Your task to perform on an android device: open app "Yahoo Mail" (install if not already installed) Image 0: 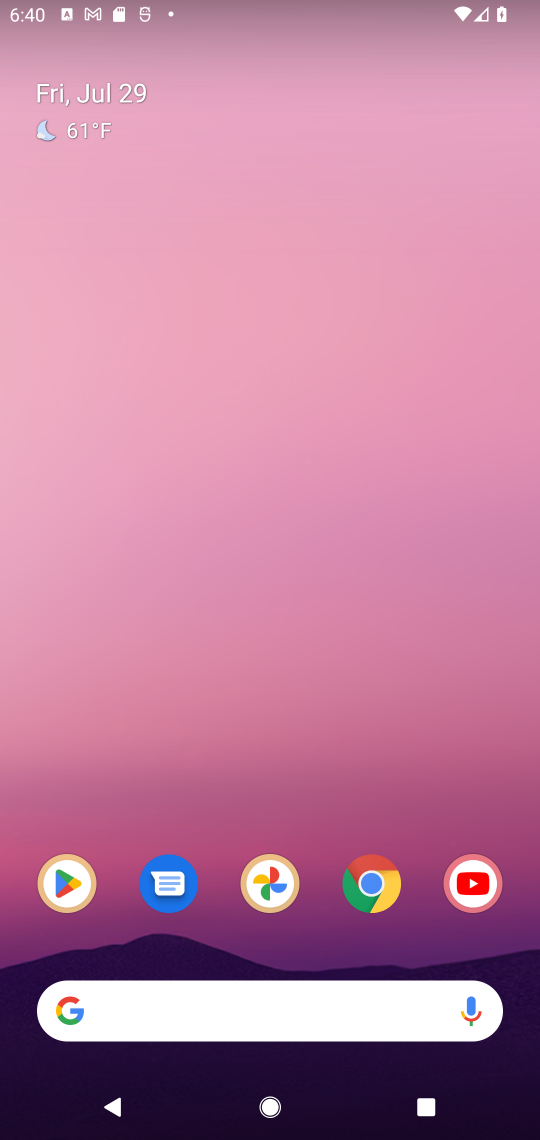
Step 0: click (53, 889)
Your task to perform on an android device: open app "Yahoo Mail" (install if not already installed) Image 1: 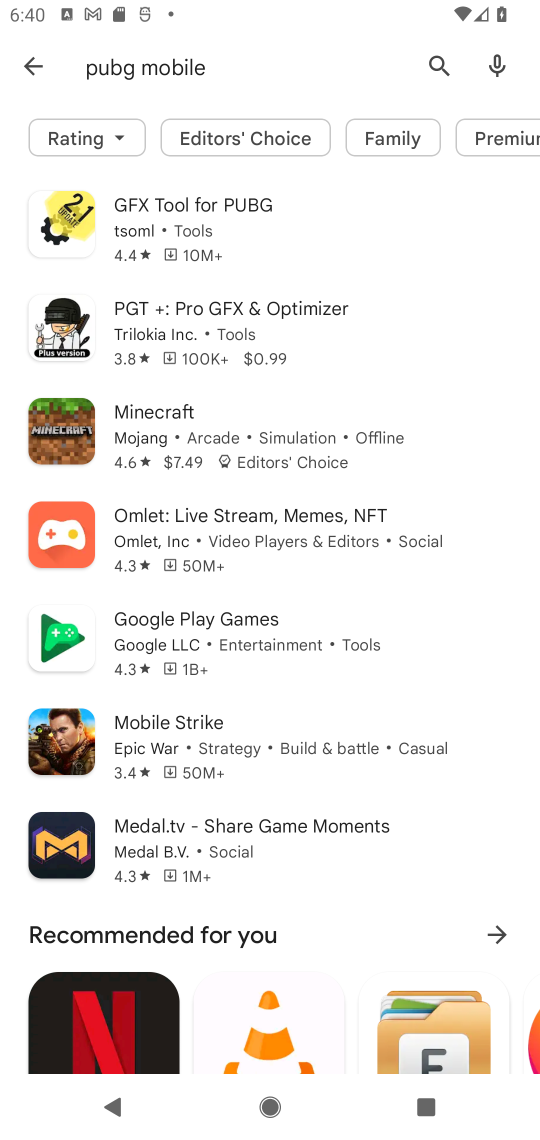
Step 1: click (442, 63)
Your task to perform on an android device: open app "Yahoo Mail" (install if not already installed) Image 2: 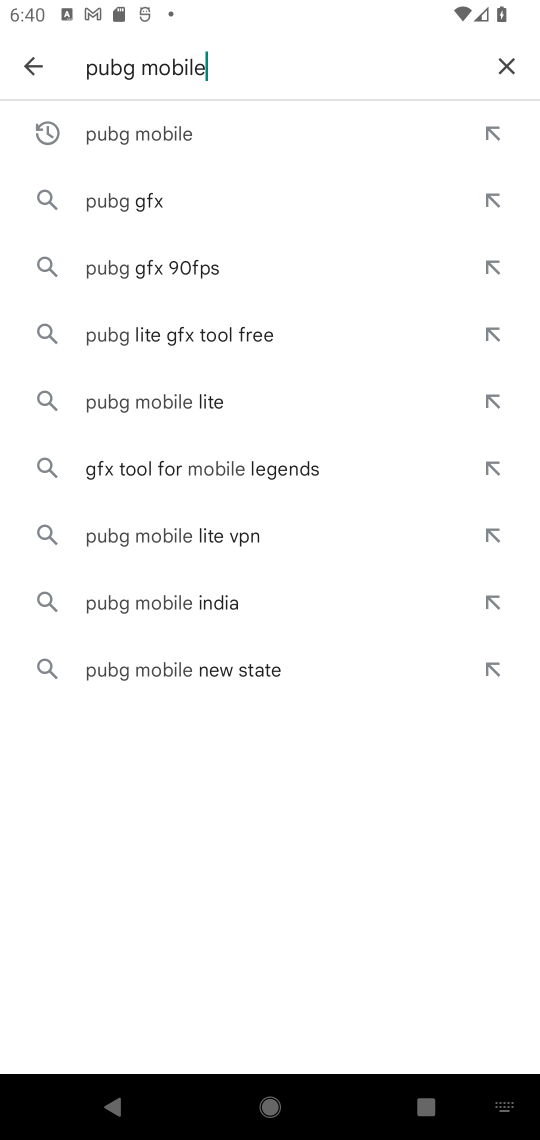
Step 2: click (505, 63)
Your task to perform on an android device: open app "Yahoo Mail" (install if not already installed) Image 3: 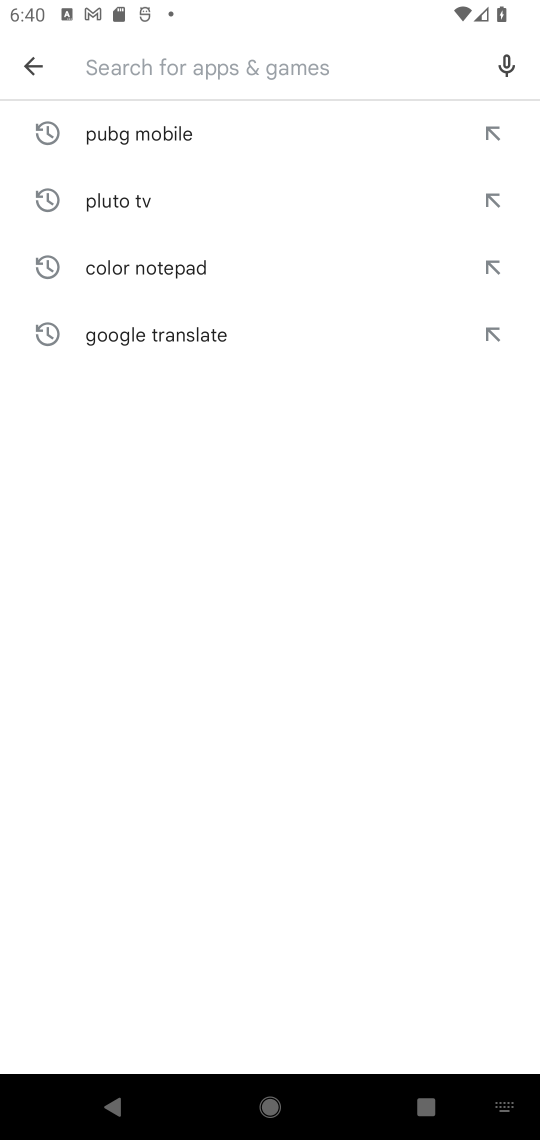
Step 3: click (224, 70)
Your task to perform on an android device: open app "Yahoo Mail" (install if not already installed) Image 4: 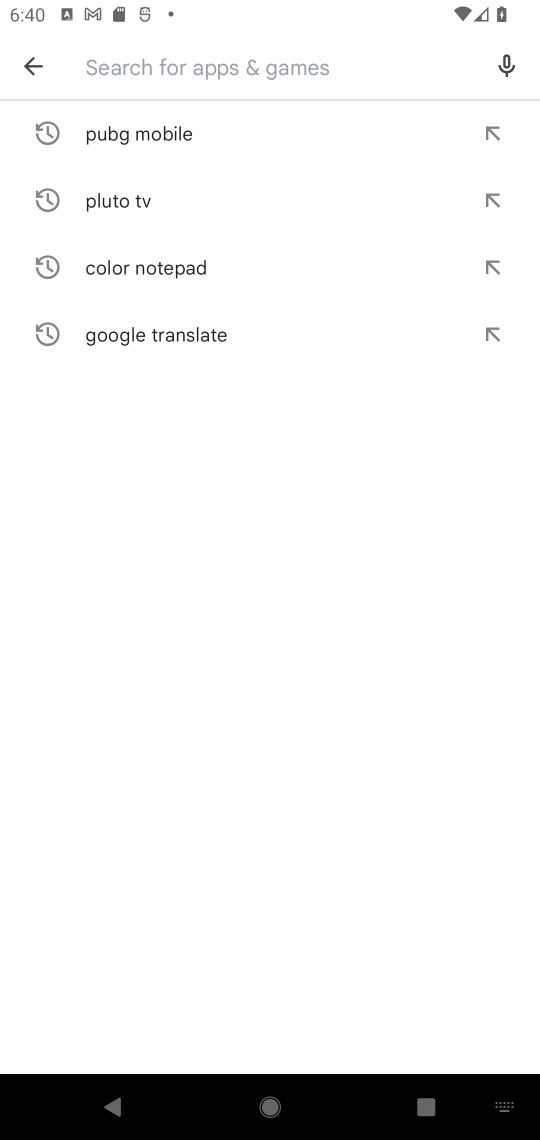
Step 4: type "yahoo mail"
Your task to perform on an android device: open app "Yahoo Mail" (install if not already installed) Image 5: 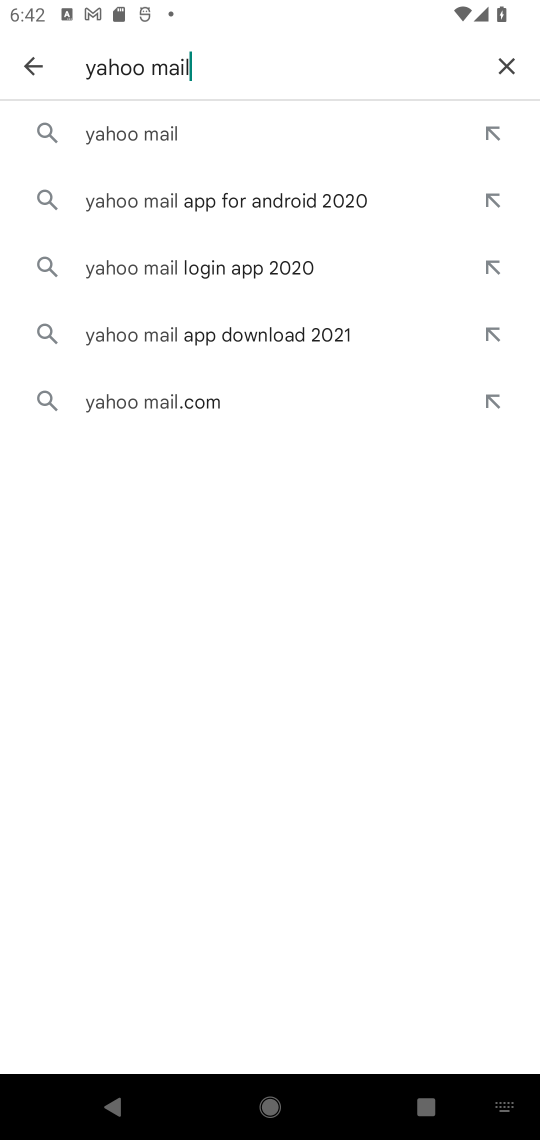
Step 5: click (171, 129)
Your task to perform on an android device: open app "Yahoo Mail" (install if not already installed) Image 6: 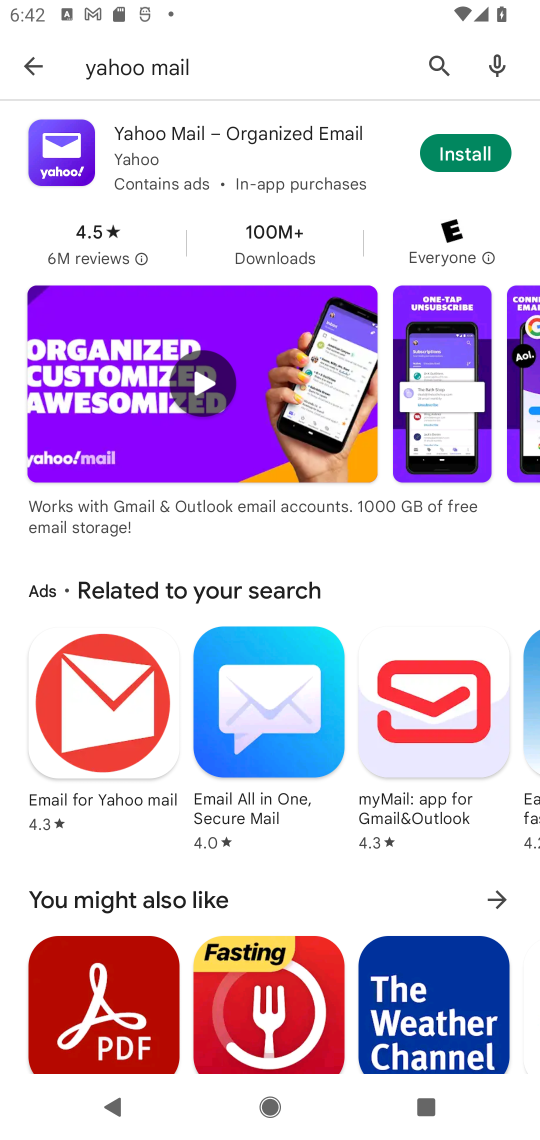
Step 6: click (456, 154)
Your task to perform on an android device: open app "Yahoo Mail" (install if not already installed) Image 7: 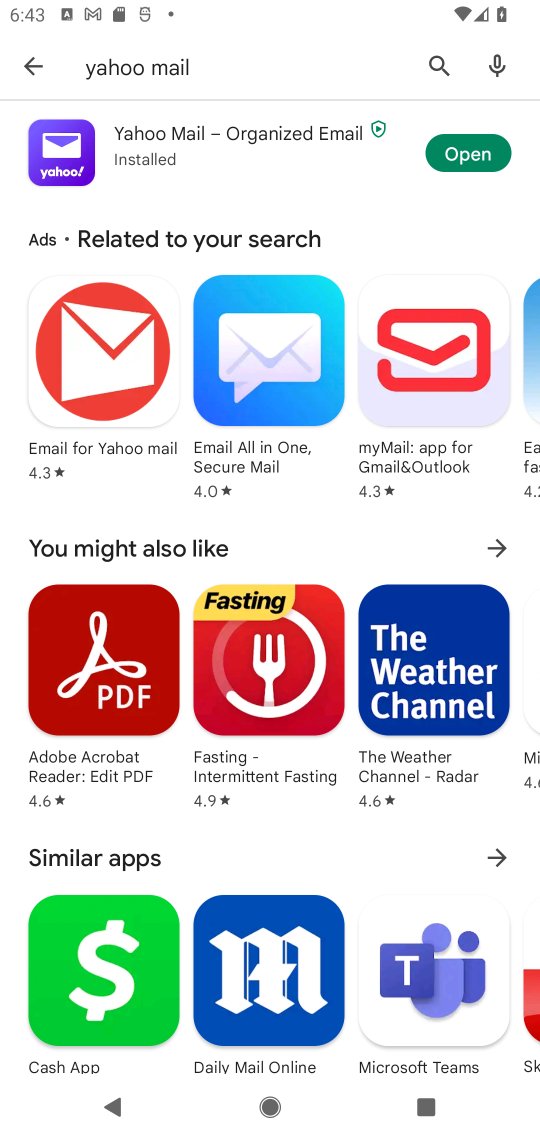
Step 7: click (446, 157)
Your task to perform on an android device: open app "Yahoo Mail" (install if not already installed) Image 8: 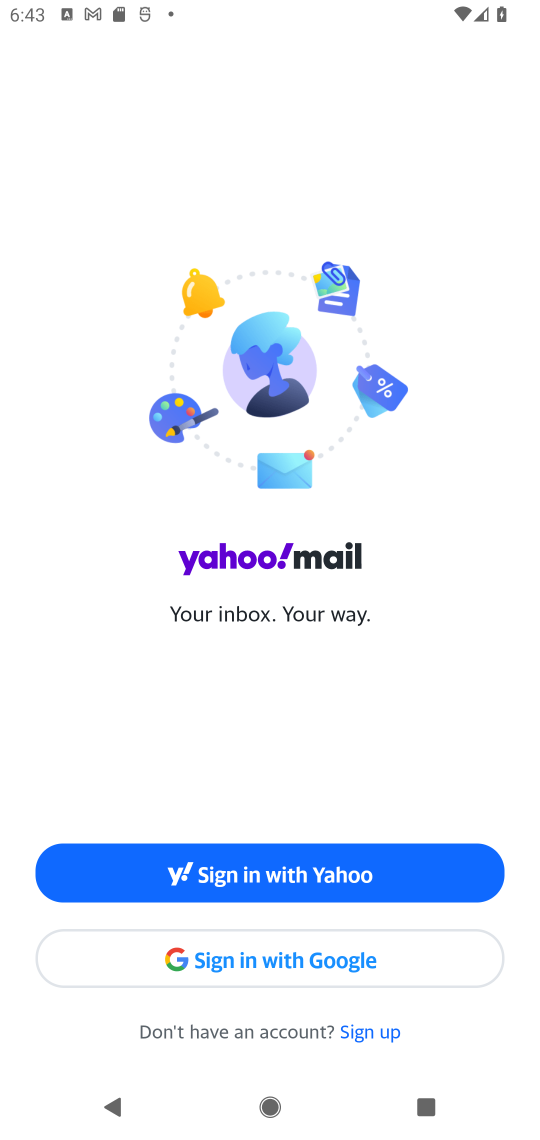
Step 8: task complete